Your task to perform on an android device: open app "Pluto TV - Live TV and Movies" Image 0: 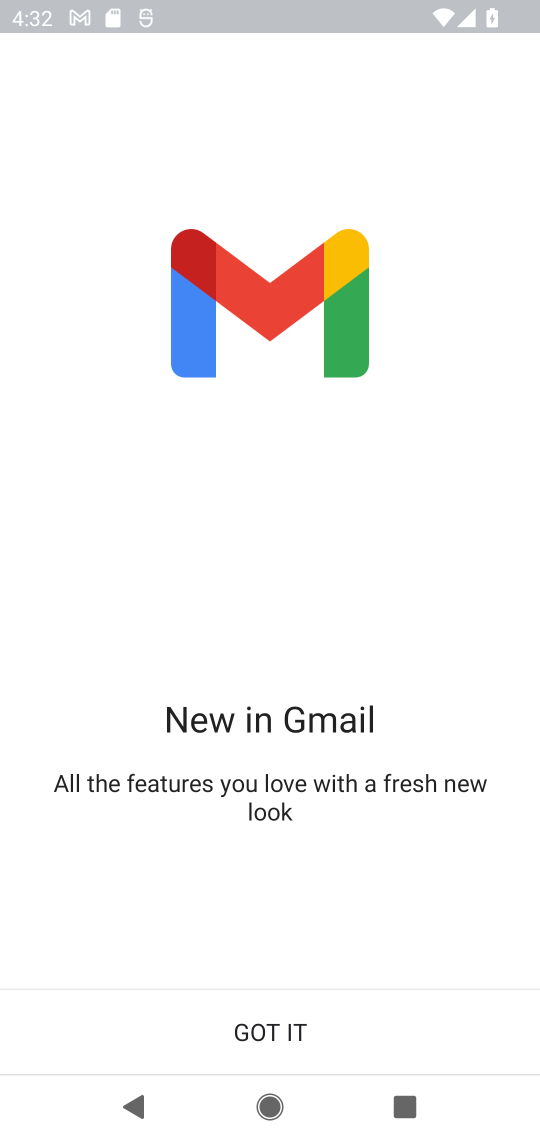
Step 0: press home button
Your task to perform on an android device: open app "Pluto TV - Live TV and Movies" Image 1: 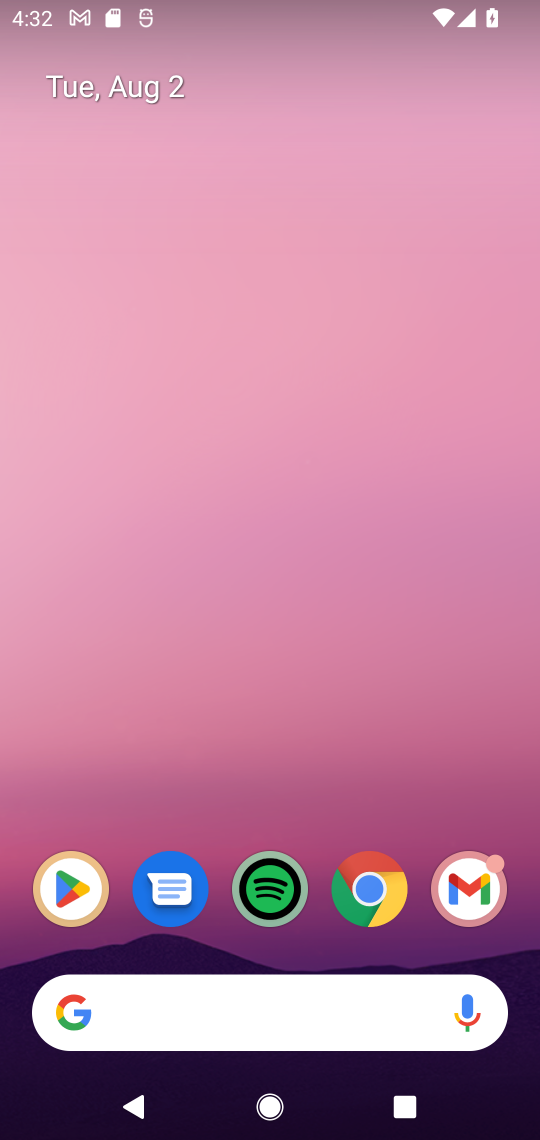
Step 1: drag from (391, 766) to (388, 2)
Your task to perform on an android device: open app "Pluto TV - Live TV and Movies" Image 2: 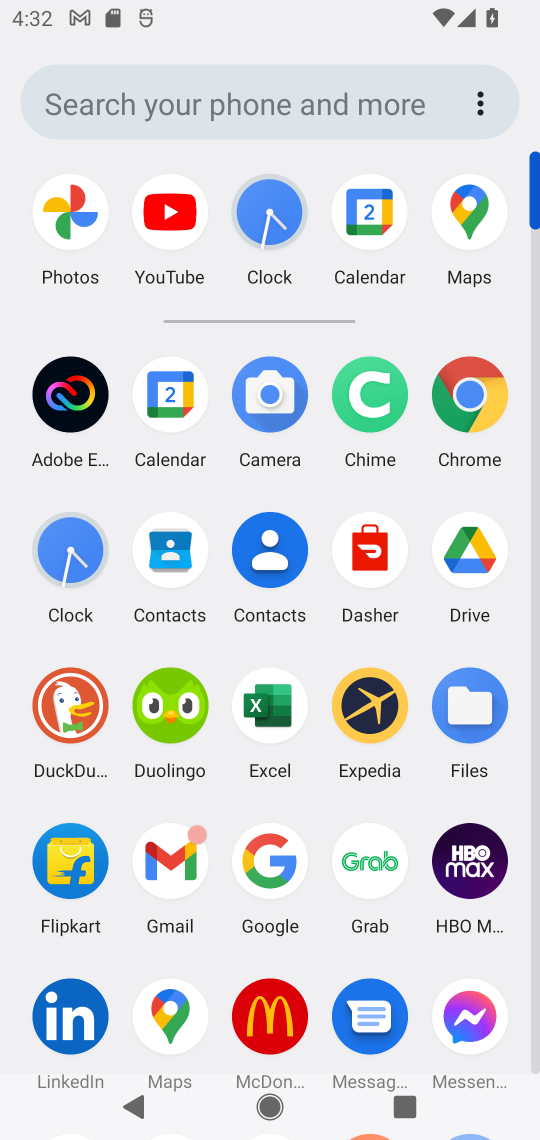
Step 2: drag from (512, 801) to (522, 311)
Your task to perform on an android device: open app "Pluto TV - Live TV and Movies" Image 3: 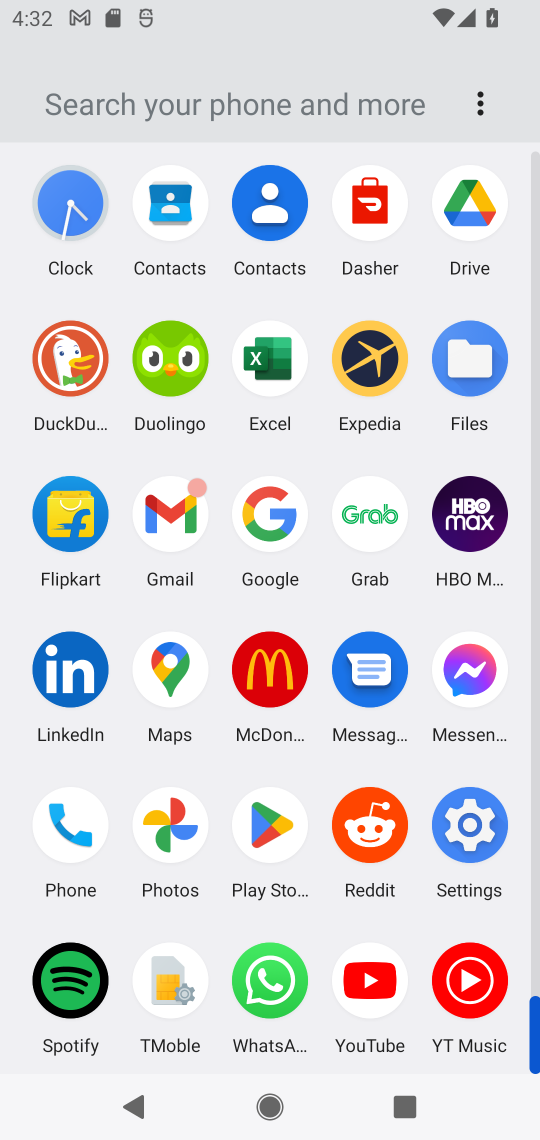
Step 3: click (282, 831)
Your task to perform on an android device: open app "Pluto TV - Live TV and Movies" Image 4: 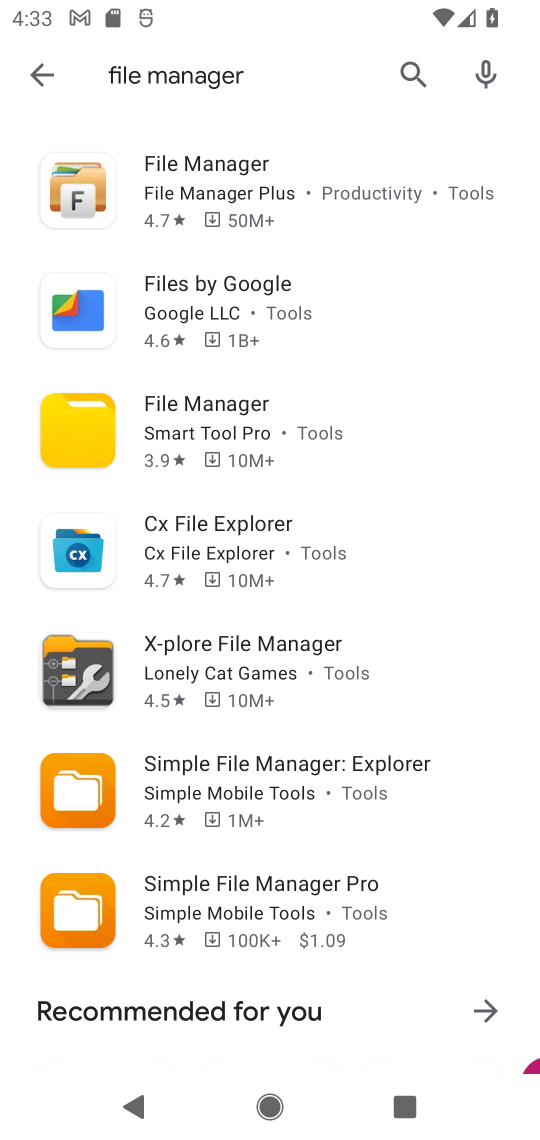
Step 4: click (416, 62)
Your task to perform on an android device: open app "Pluto TV - Live TV and Movies" Image 5: 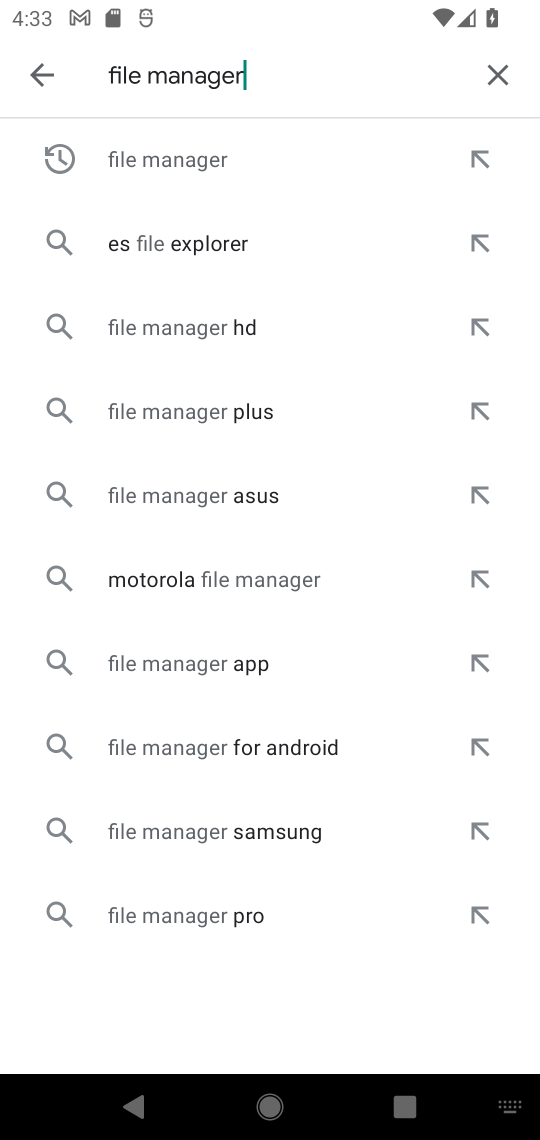
Step 5: click (500, 74)
Your task to perform on an android device: open app "Pluto TV - Live TV and Movies" Image 6: 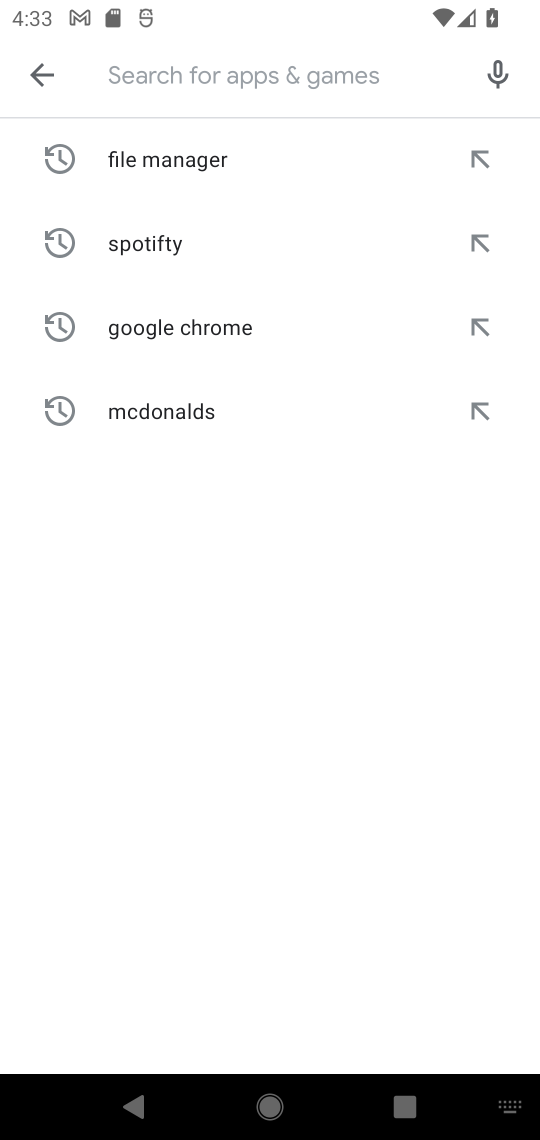
Step 6: click (370, 79)
Your task to perform on an android device: open app "Pluto TV - Live TV and Movies" Image 7: 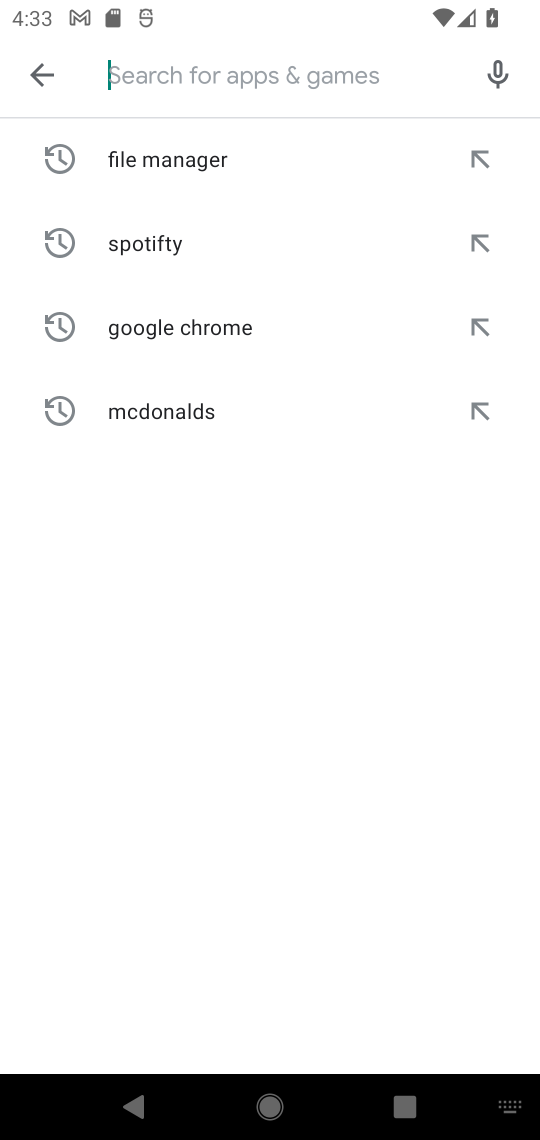
Step 7: type "Pluto TV - Live TV and Movie"
Your task to perform on an android device: open app "Pluto TV - Live TV and Movies" Image 8: 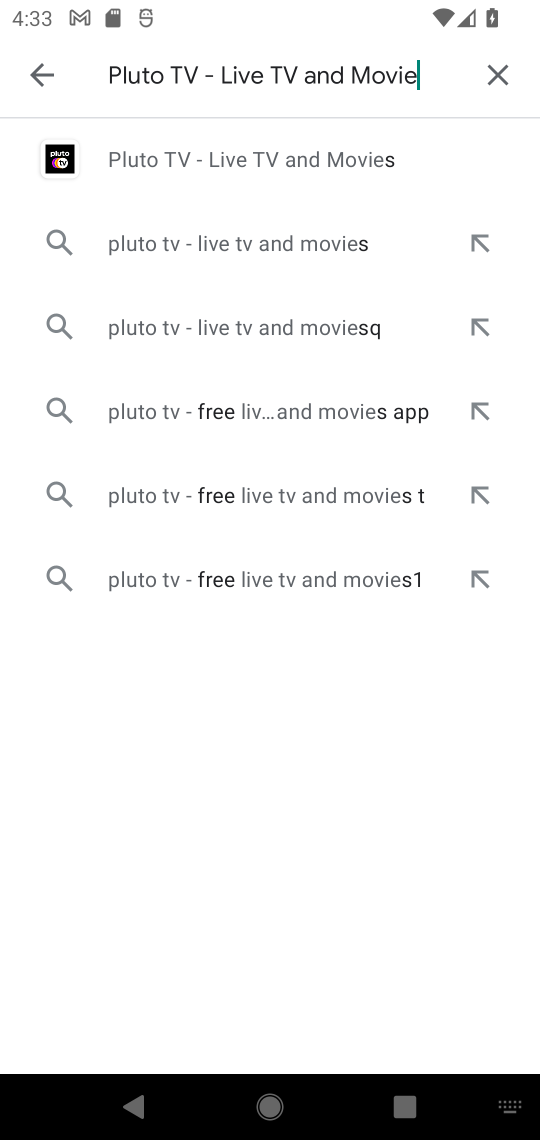
Step 8: click (328, 157)
Your task to perform on an android device: open app "Pluto TV - Live TV and Movies" Image 9: 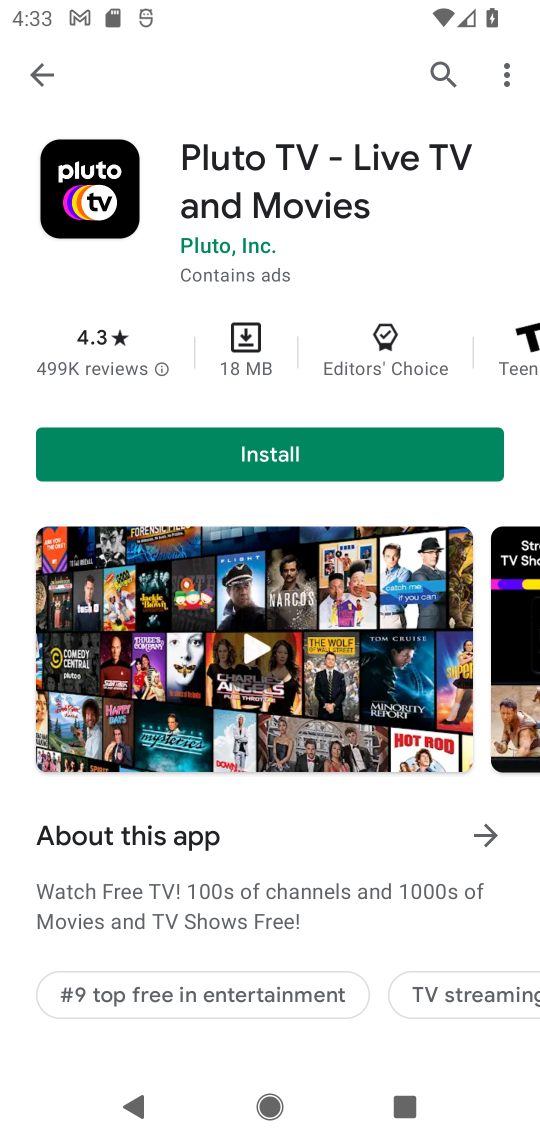
Step 9: task complete